Your task to perform on an android device: Open Chrome and go to the settings page Image 0: 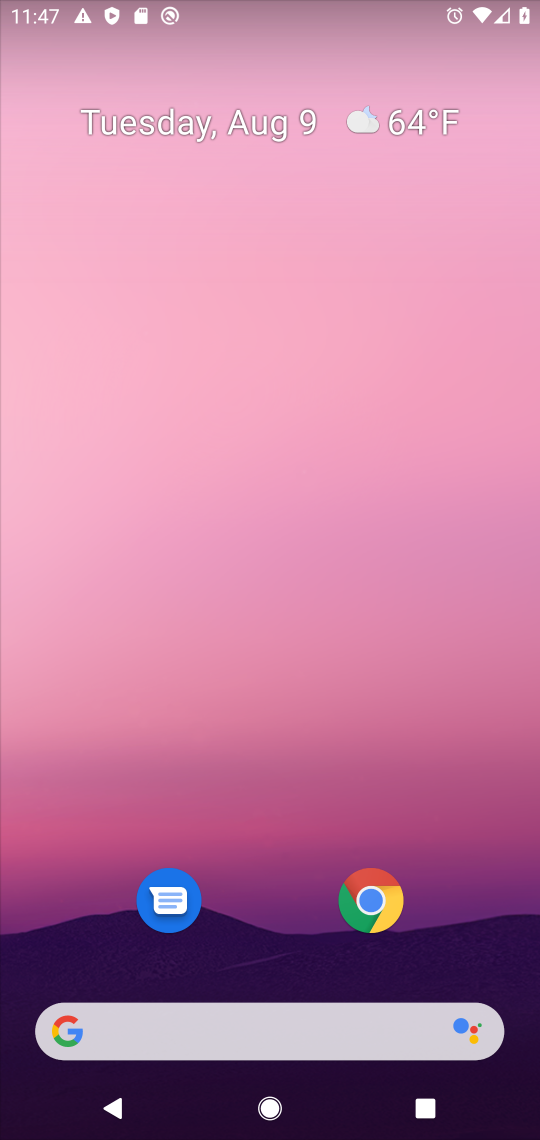
Step 0: click (371, 908)
Your task to perform on an android device: Open Chrome and go to the settings page Image 1: 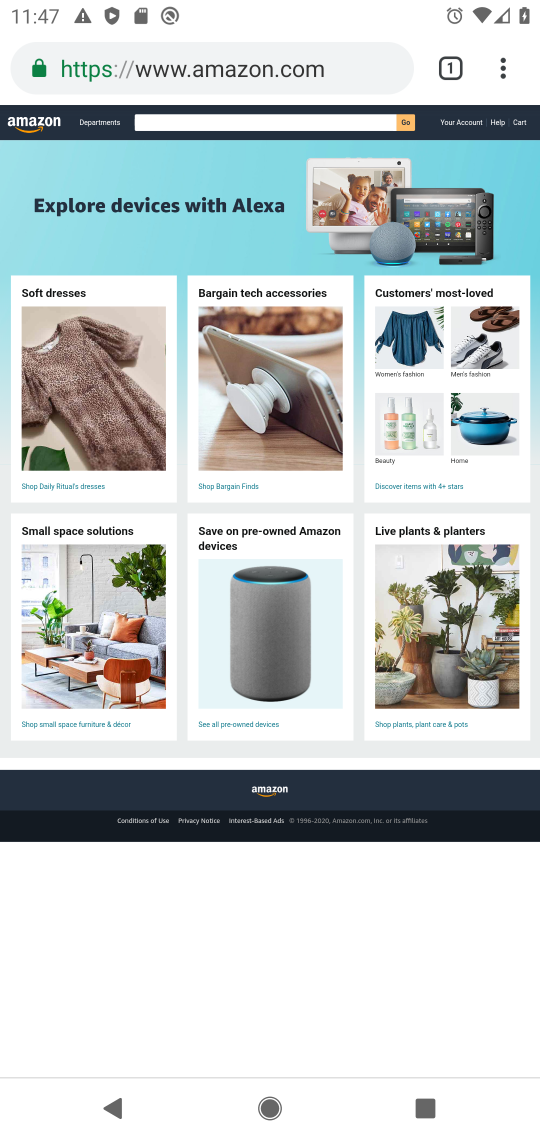
Step 1: click (503, 75)
Your task to perform on an android device: Open Chrome and go to the settings page Image 2: 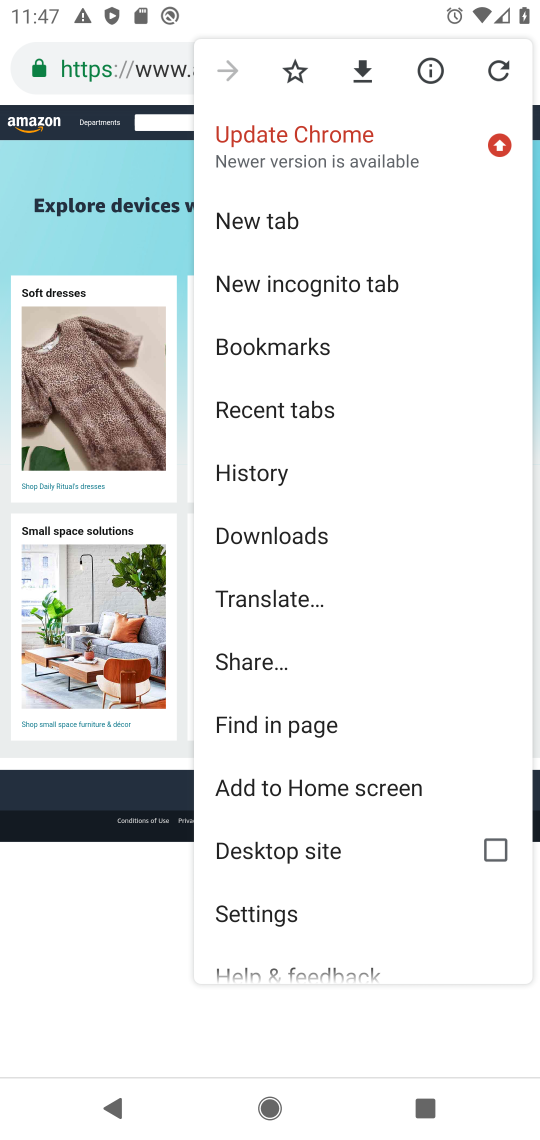
Step 2: click (280, 911)
Your task to perform on an android device: Open Chrome and go to the settings page Image 3: 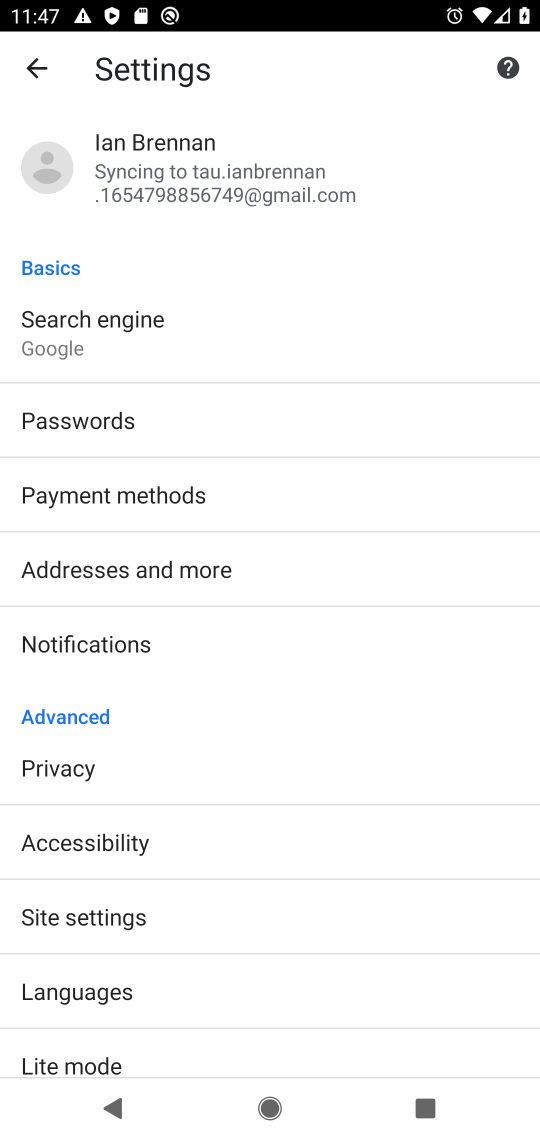
Step 3: task complete